Your task to perform on an android device: change notifications settings Image 0: 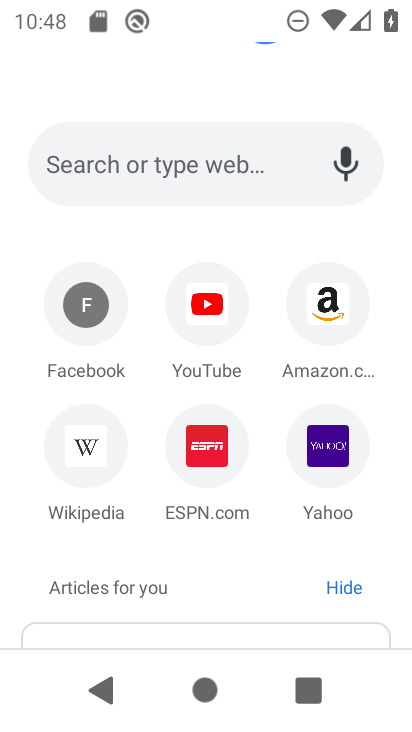
Step 0: press home button
Your task to perform on an android device: change notifications settings Image 1: 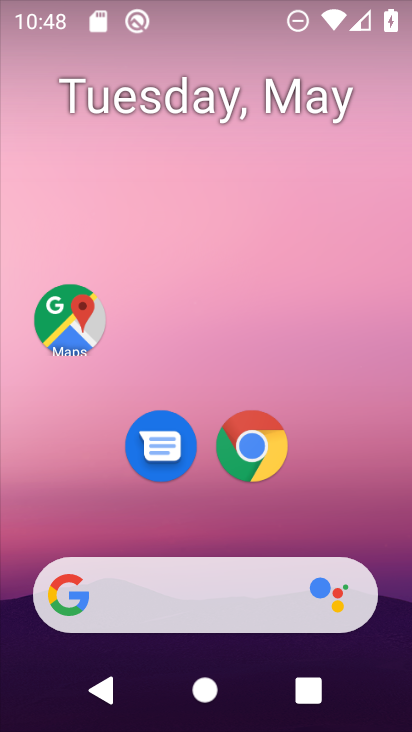
Step 1: drag from (217, 522) to (318, 31)
Your task to perform on an android device: change notifications settings Image 2: 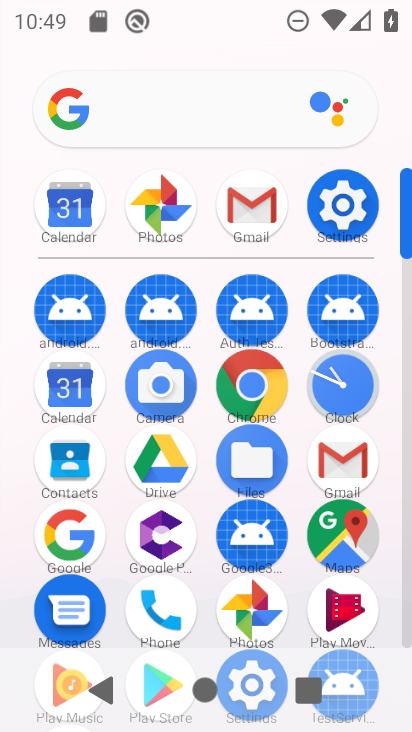
Step 2: click (332, 200)
Your task to perform on an android device: change notifications settings Image 3: 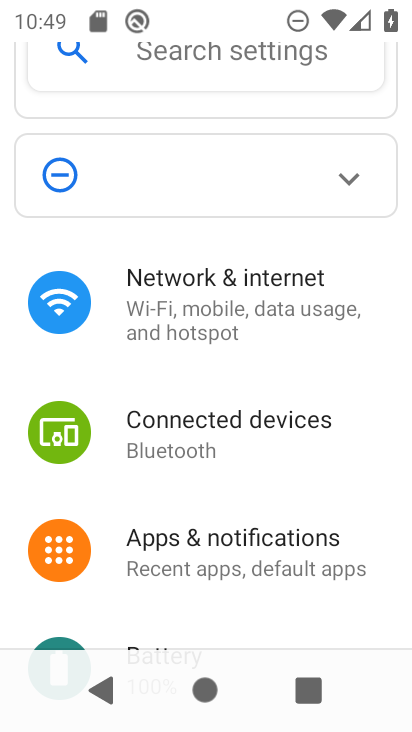
Step 3: click (248, 535)
Your task to perform on an android device: change notifications settings Image 4: 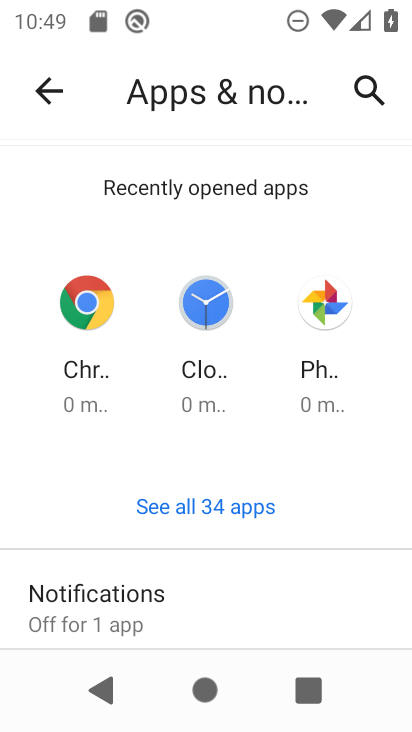
Step 4: drag from (199, 612) to (192, 333)
Your task to perform on an android device: change notifications settings Image 5: 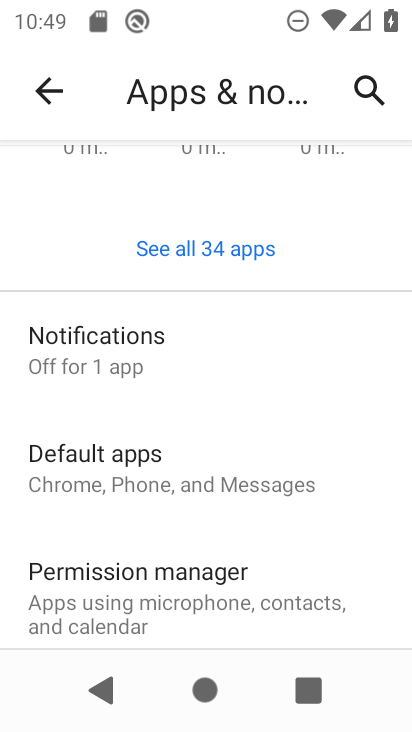
Step 5: click (165, 350)
Your task to perform on an android device: change notifications settings Image 6: 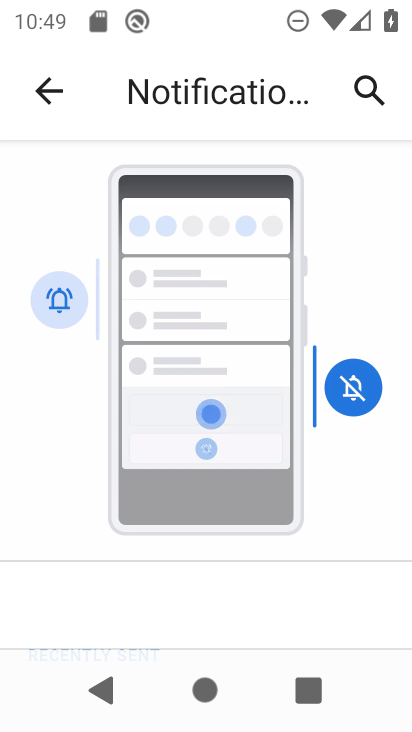
Step 6: drag from (230, 515) to (366, 25)
Your task to perform on an android device: change notifications settings Image 7: 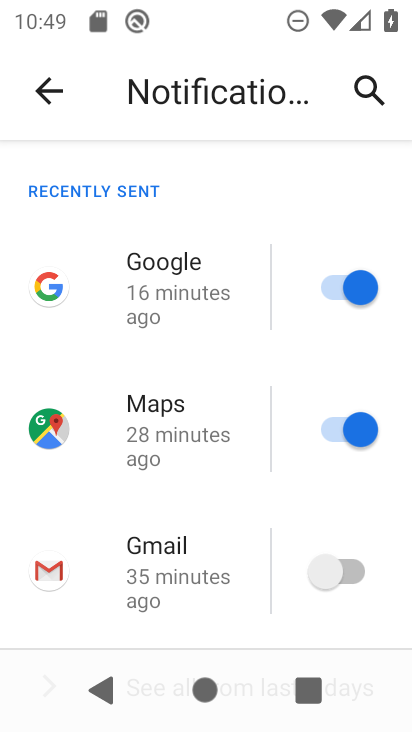
Step 7: drag from (122, 587) to (198, 245)
Your task to perform on an android device: change notifications settings Image 8: 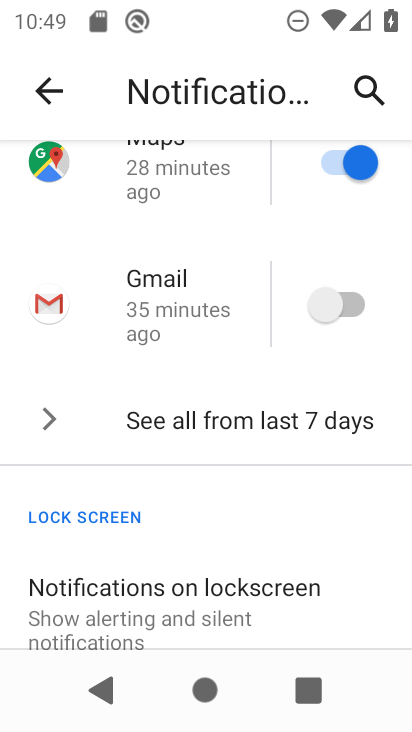
Step 8: click (176, 626)
Your task to perform on an android device: change notifications settings Image 9: 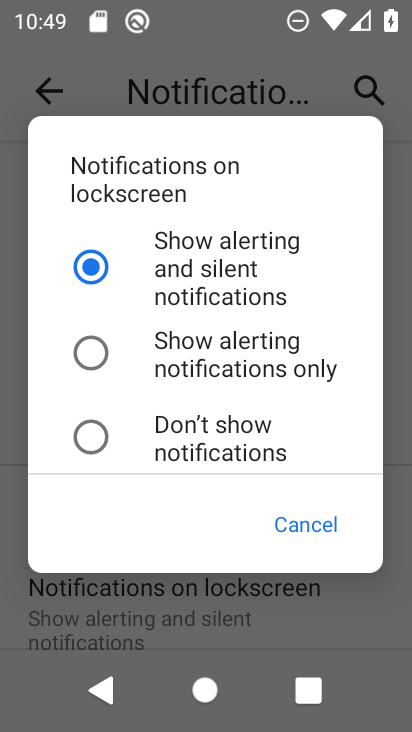
Step 9: click (166, 429)
Your task to perform on an android device: change notifications settings Image 10: 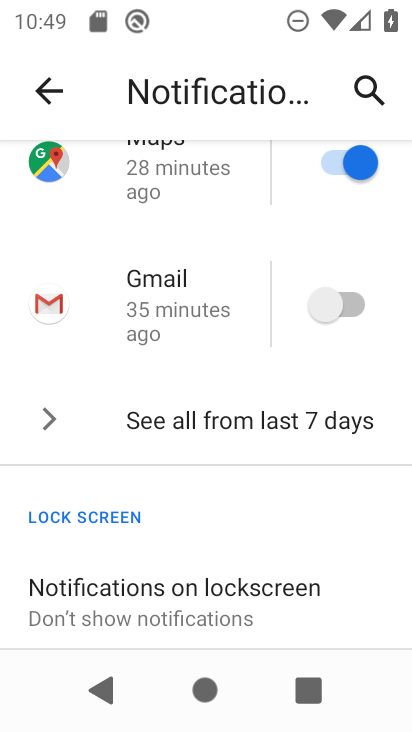
Step 10: click (187, 431)
Your task to perform on an android device: change notifications settings Image 11: 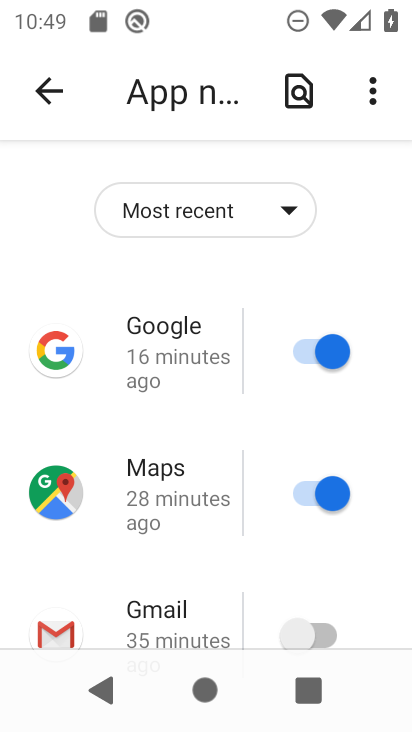
Step 11: click (304, 354)
Your task to perform on an android device: change notifications settings Image 12: 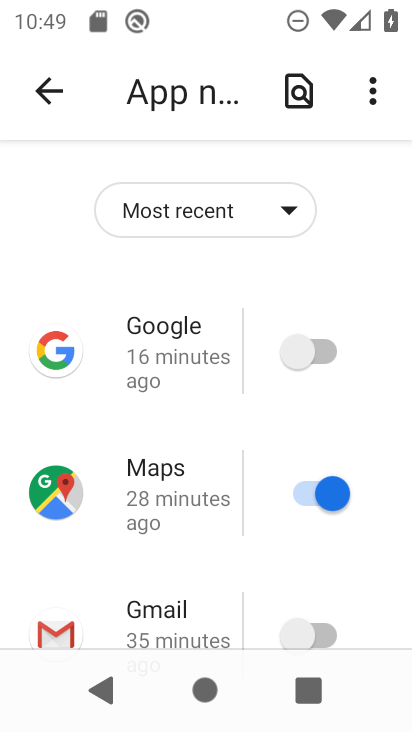
Step 12: click (293, 489)
Your task to perform on an android device: change notifications settings Image 13: 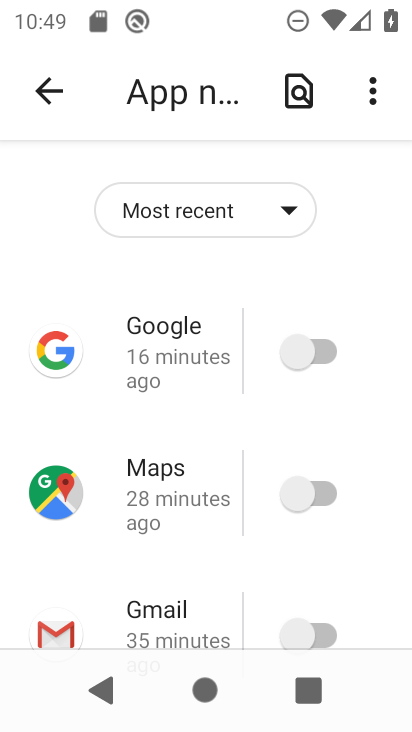
Step 13: drag from (253, 543) to (350, 168)
Your task to perform on an android device: change notifications settings Image 14: 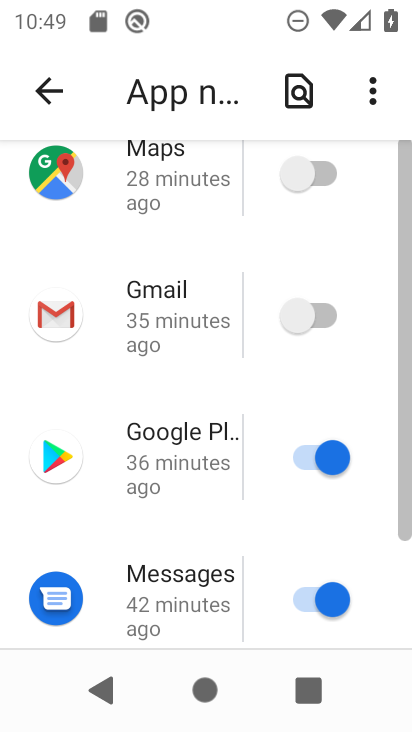
Step 14: click (320, 455)
Your task to perform on an android device: change notifications settings Image 15: 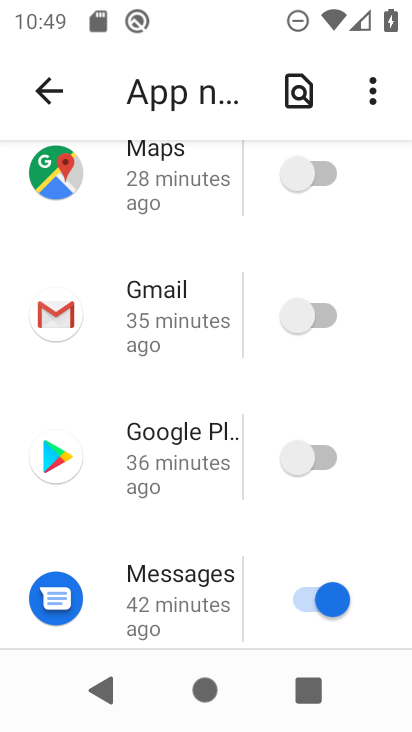
Step 15: click (315, 587)
Your task to perform on an android device: change notifications settings Image 16: 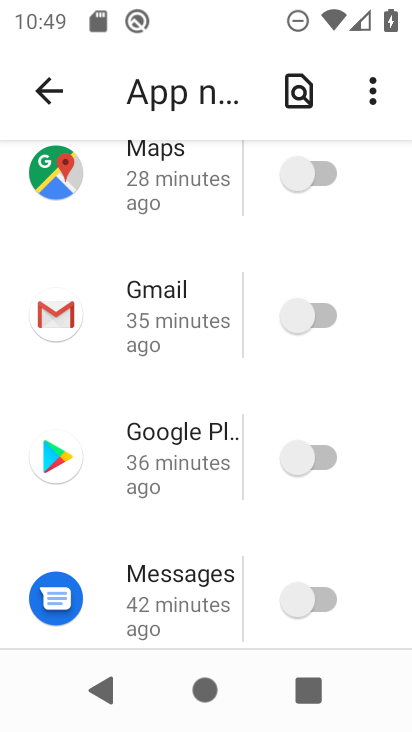
Step 16: drag from (250, 583) to (361, 84)
Your task to perform on an android device: change notifications settings Image 17: 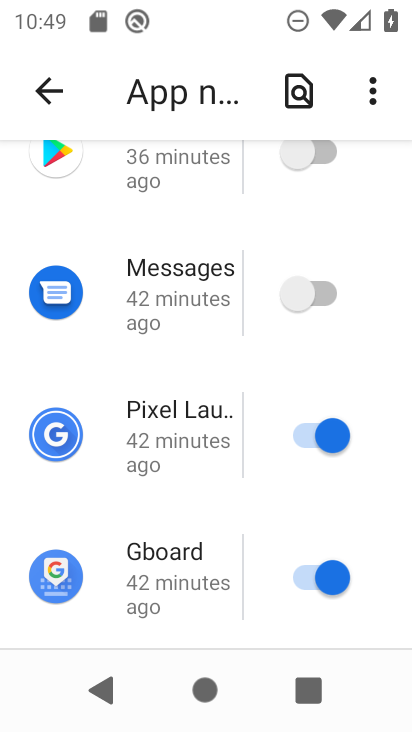
Step 17: click (291, 441)
Your task to perform on an android device: change notifications settings Image 18: 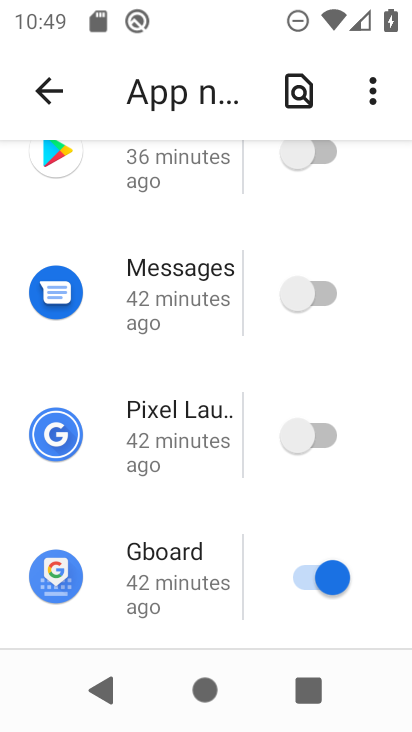
Step 18: click (294, 588)
Your task to perform on an android device: change notifications settings Image 19: 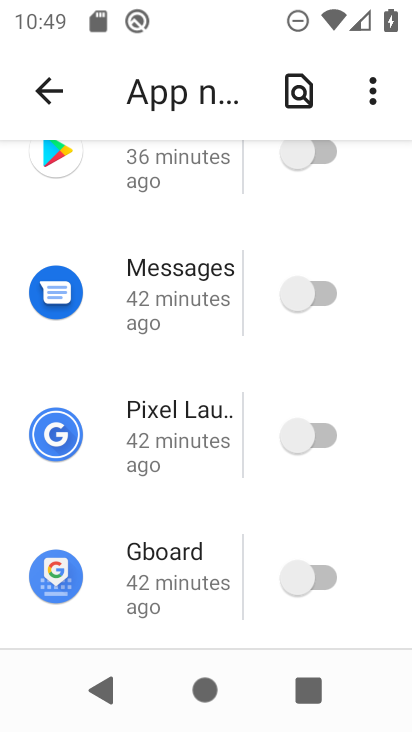
Step 19: task complete